Your task to perform on an android device: allow cookies in the chrome app Image 0: 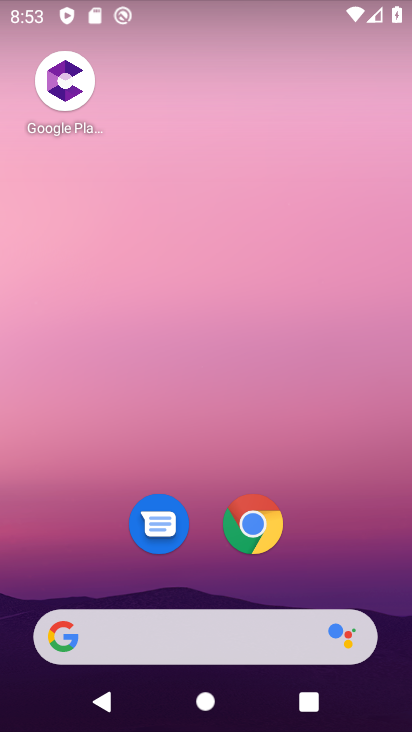
Step 0: click (264, 519)
Your task to perform on an android device: allow cookies in the chrome app Image 1: 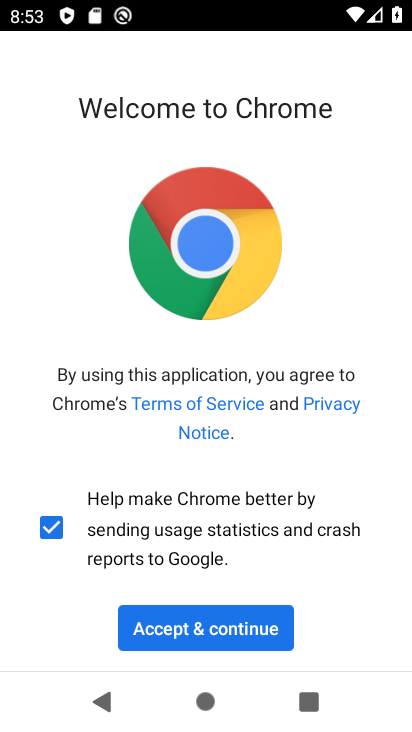
Step 1: click (272, 621)
Your task to perform on an android device: allow cookies in the chrome app Image 2: 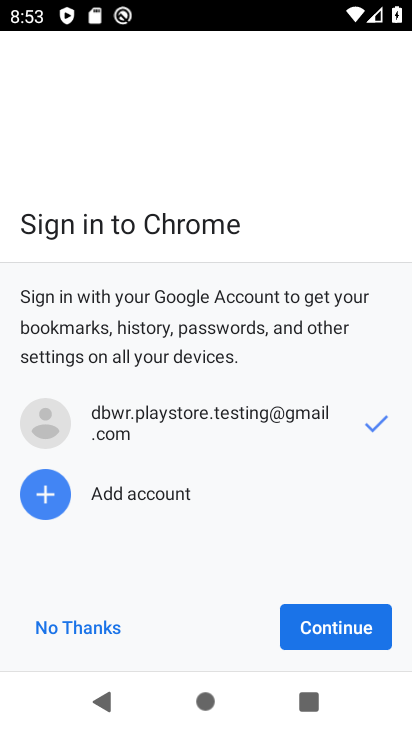
Step 2: click (322, 618)
Your task to perform on an android device: allow cookies in the chrome app Image 3: 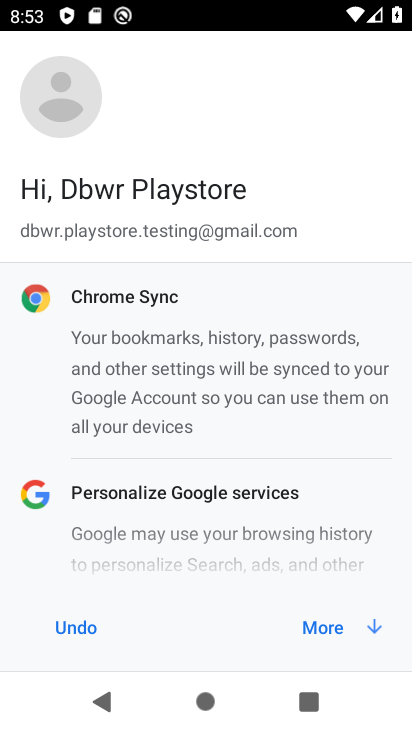
Step 3: click (322, 618)
Your task to perform on an android device: allow cookies in the chrome app Image 4: 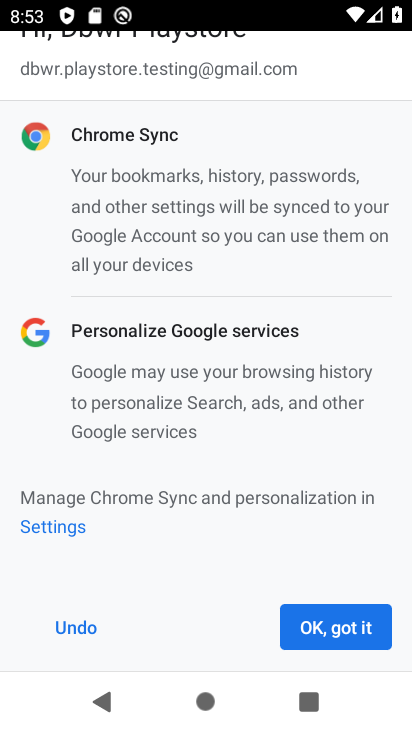
Step 4: click (341, 636)
Your task to perform on an android device: allow cookies in the chrome app Image 5: 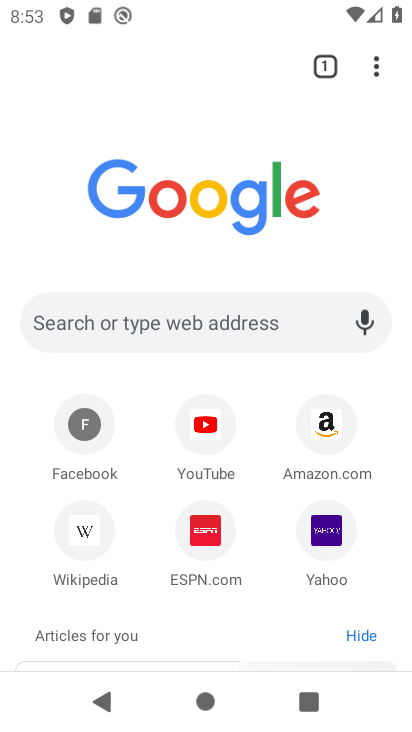
Step 5: click (375, 65)
Your task to perform on an android device: allow cookies in the chrome app Image 6: 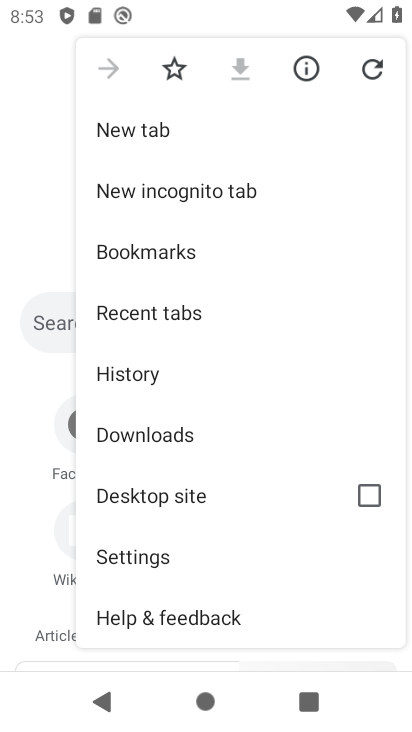
Step 6: click (179, 553)
Your task to perform on an android device: allow cookies in the chrome app Image 7: 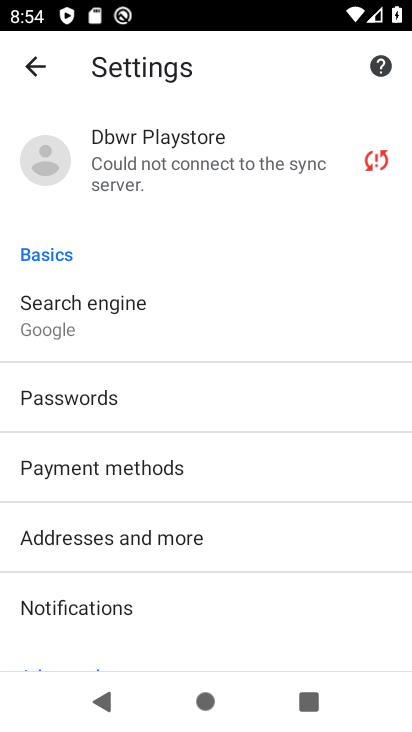
Step 7: drag from (259, 502) to (261, 168)
Your task to perform on an android device: allow cookies in the chrome app Image 8: 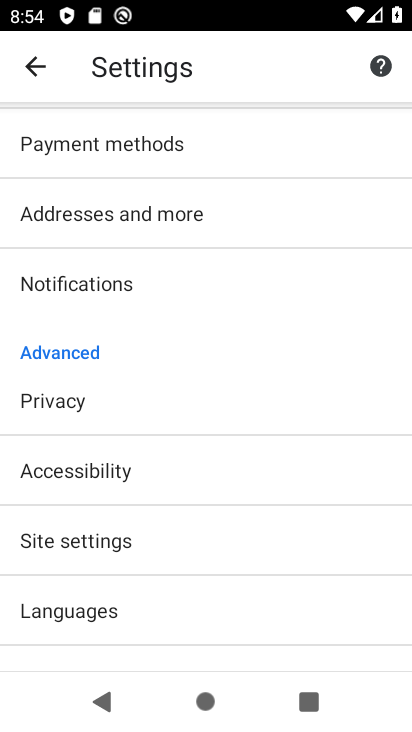
Step 8: click (183, 545)
Your task to perform on an android device: allow cookies in the chrome app Image 9: 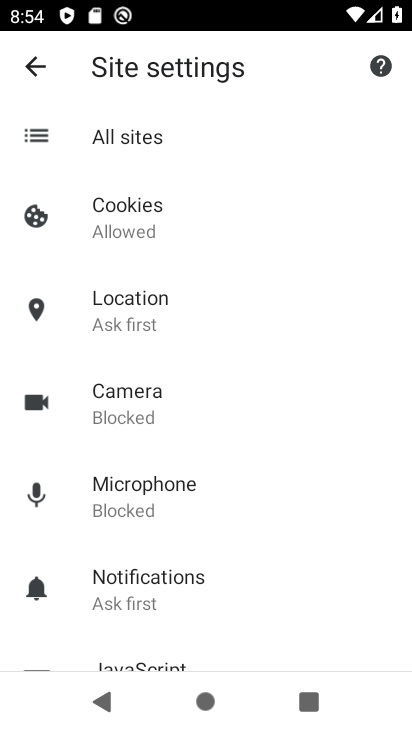
Step 9: click (167, 216)
Your task to perform on an android device: allow cookies in the chrome app Image 10: 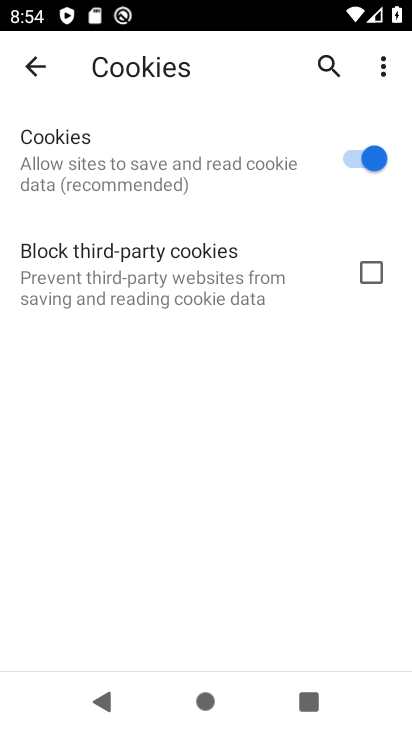
Step 10: task complete